Your task to perform on an android device: install app "DoorDash - Dasher" Image 0: 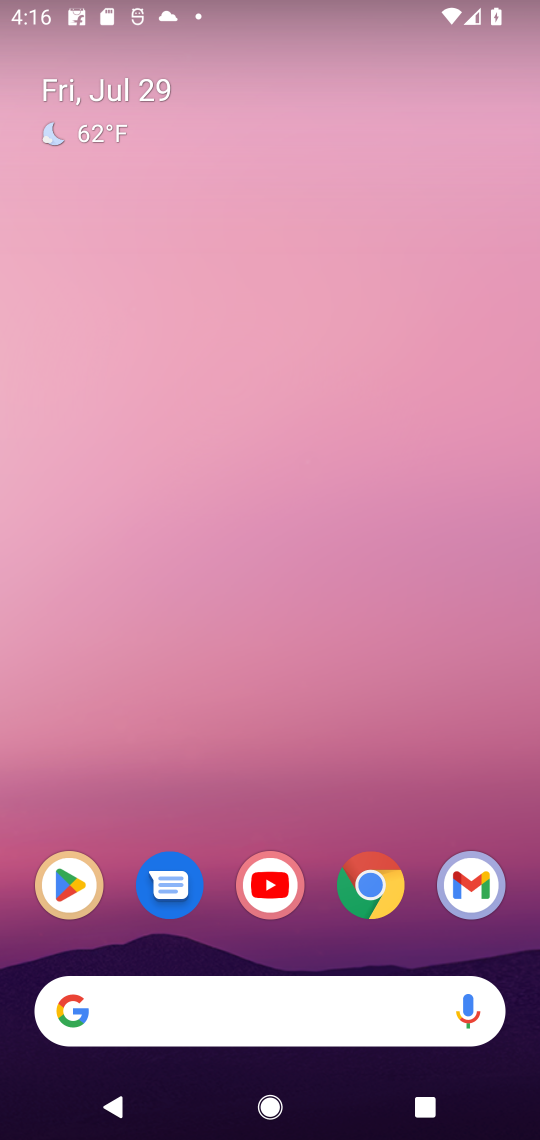
Step 0: click (83, 895)
Your task to perform on an android device: install app "DoorDash - Dasher" Image 1: 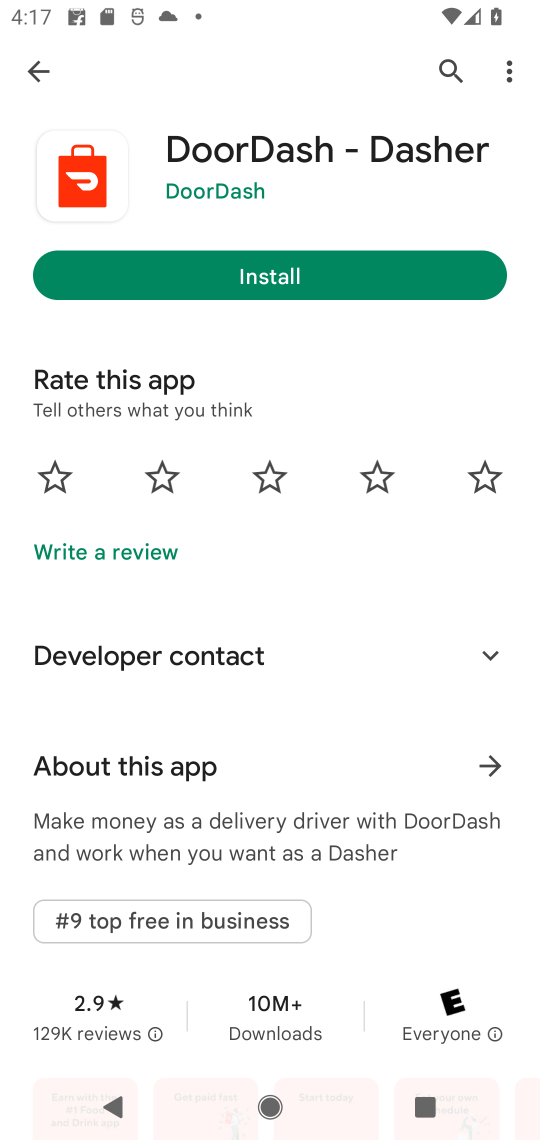
Step 1: click (451, 73)
Your task to perform on an android device: install app "DoorDash - Dasher" Image 2: 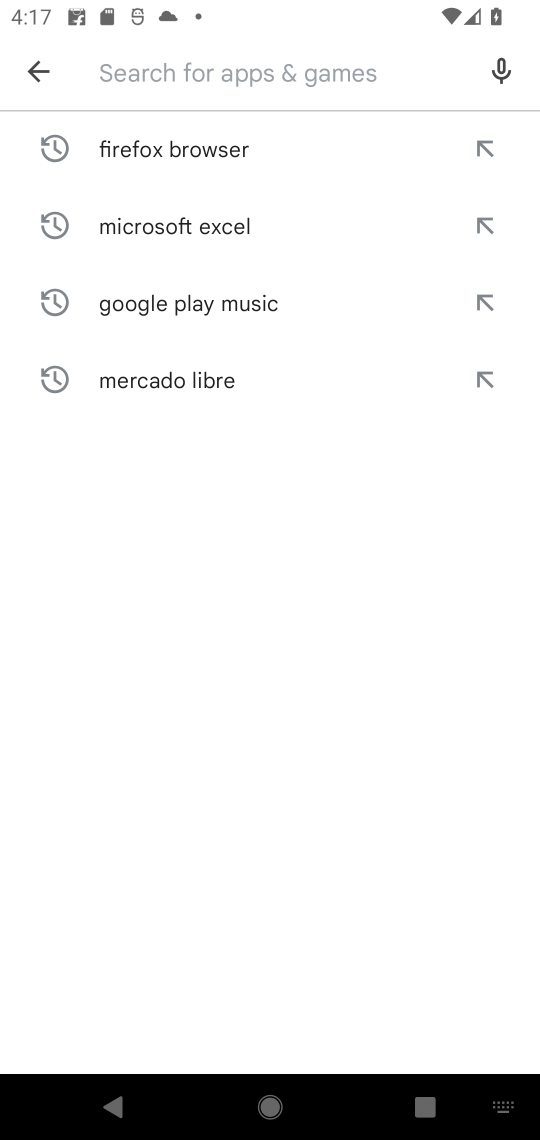
Step 2: type "DoorDash - Dasher"
Your task to perform on an android device: install app "DoorDash - Dasher" Image 3: 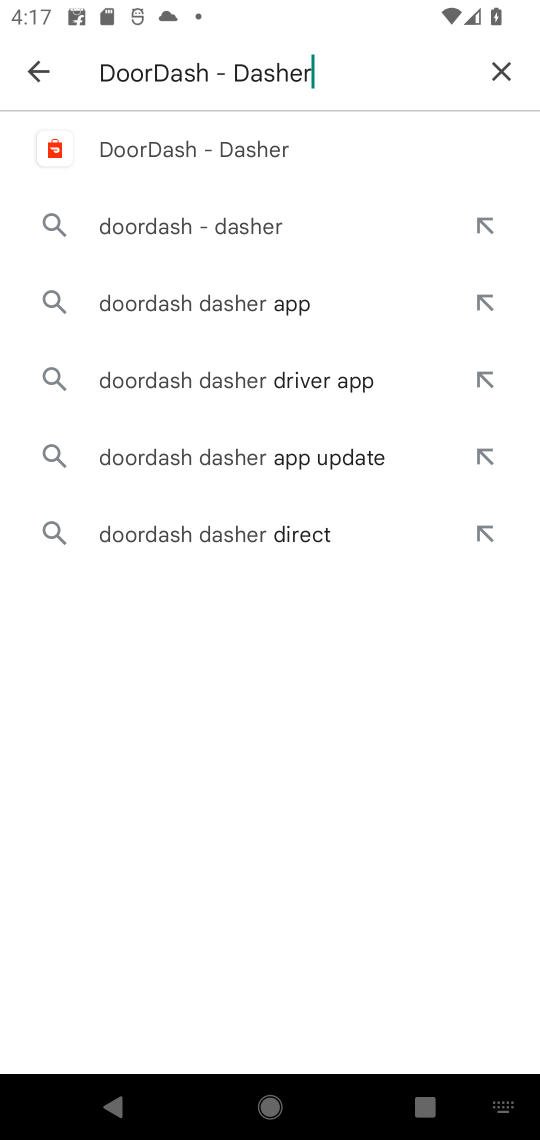
Step 3: click (254, 151)
Your task to perform on an android device: install app "DoorDash - Dasher" Image 4: 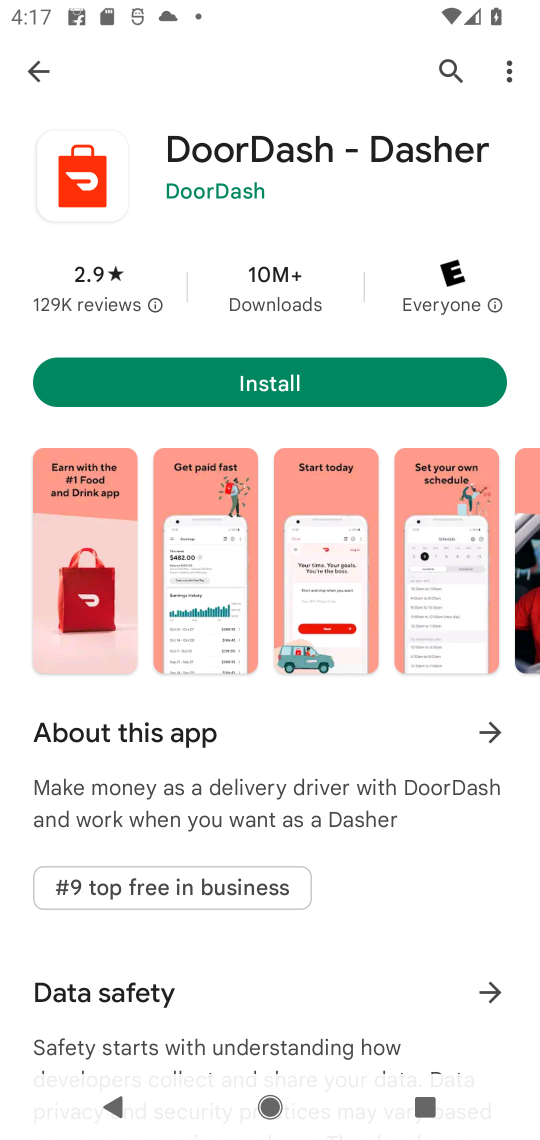
Step 4: click (246, 374)
Your task to perform on an android device: install app "DoorDash - Dasher" Image 5: 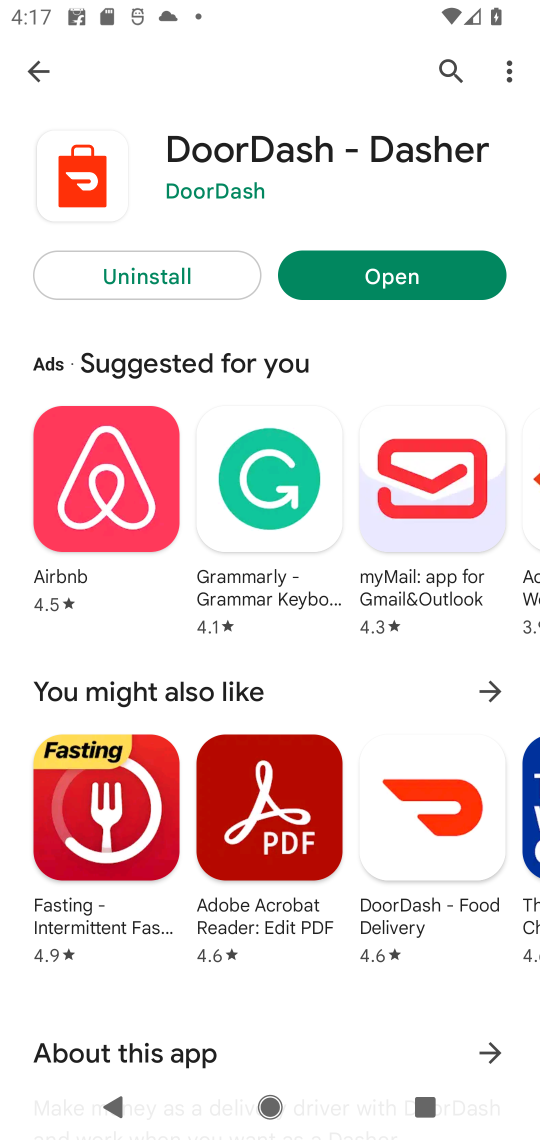
Step 5: task complete